Your task to perform on an android device: open device folders in google photos Image 0: 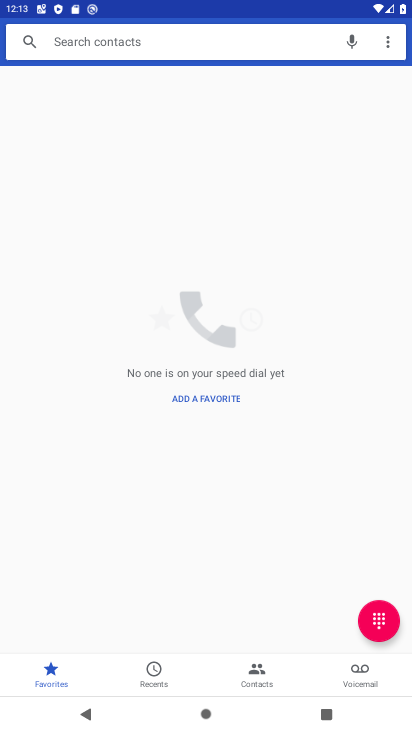
Step 0: press home button
Your task to perform on an android device: open device folders in google photos Image 1: 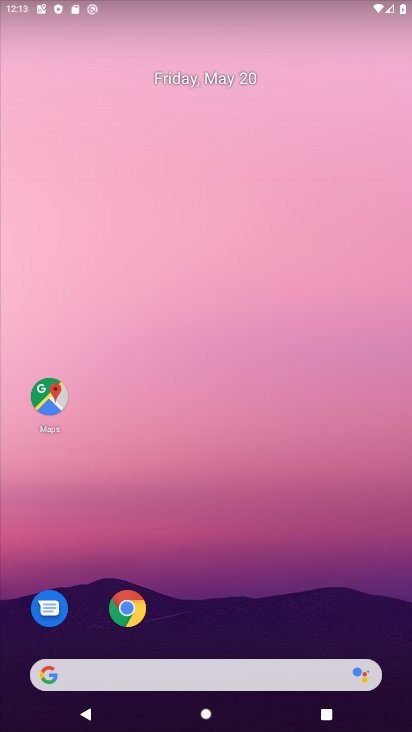
Step 1: drag from (380, 616) to (353, 75)
Your task to perform on an android device: open device folders in google photos Image 2: 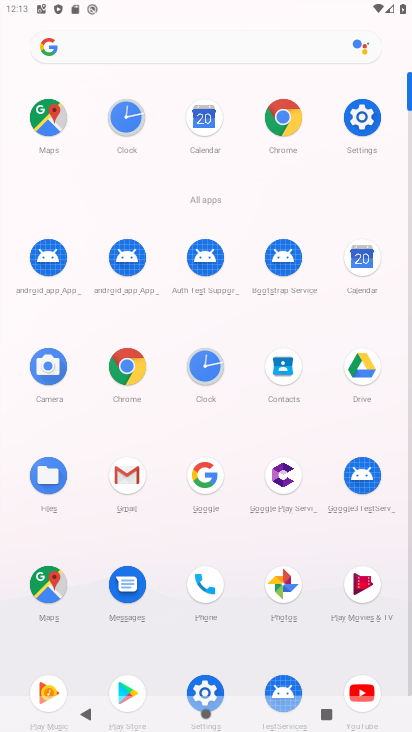
Step 2: click (289, 583)
Your task to perform on an android device: open device folders in google photos Image 3: 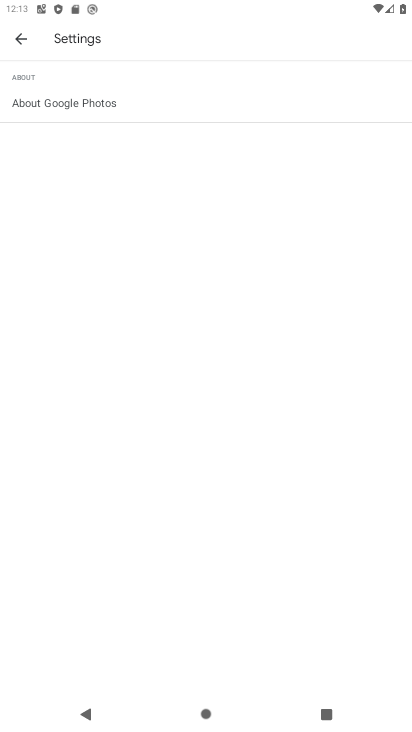
Step 3: click (17, 37)
Your task to perform on an android device: open device folders in google photos Image 4: 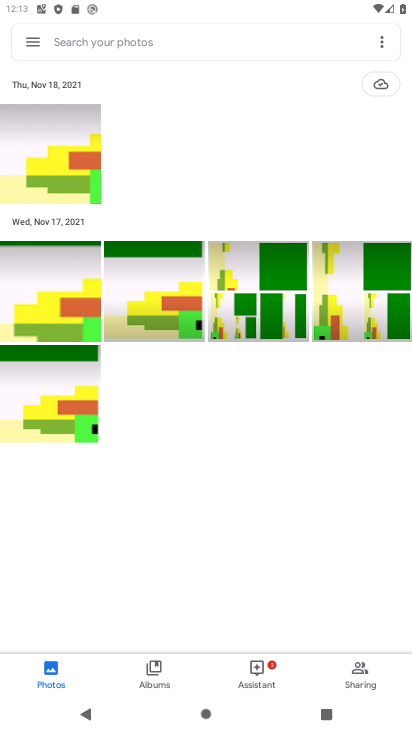
Step 4: click (25, 44)
Your task to perform on an android device: open device folders in google photos Image 5: 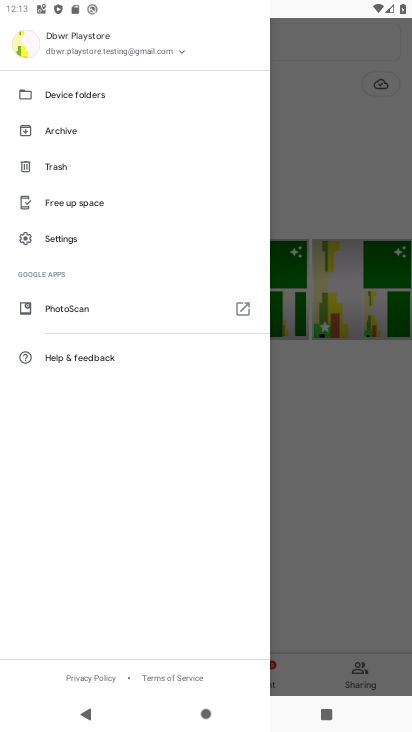
Step 5: click (82, 94)
Your task to perform on an android device: open device folders in google photos Image 6: 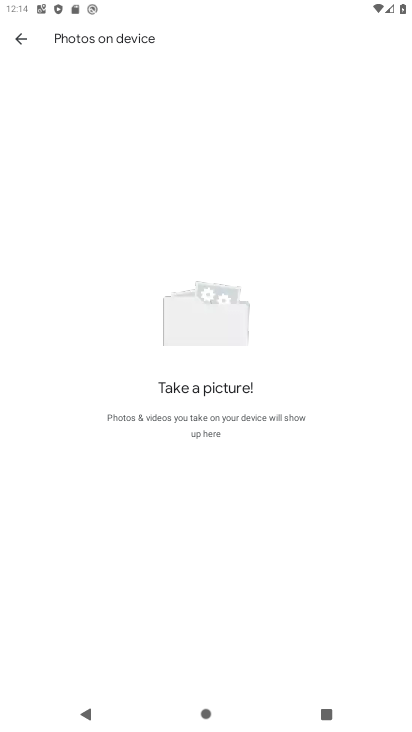
Step 6: task complete